Your task to perform on an android device: open sync settings in chrome Image 0: 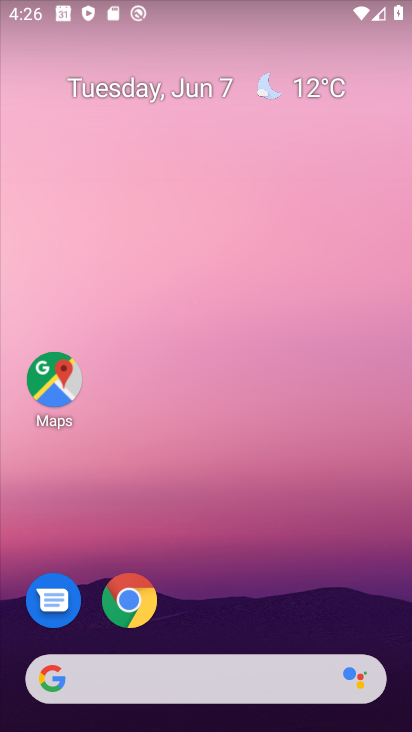
Step 0: click (130, 601)
Your task to perform on an android device: open sync settings in chrome Image 1: 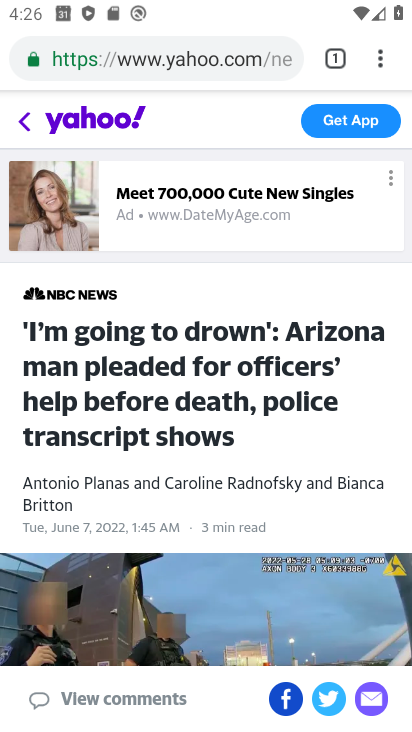
Step 1: click (377, 59)
Your task to perform on an android device: open sync settings in chrome Image 2: 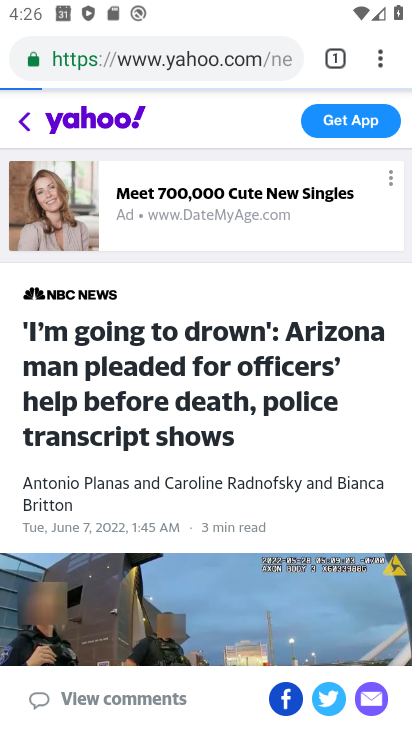
Step 2: click (377, 59)
Your task to perform on an android device: open sync settings in chrome Image 3: 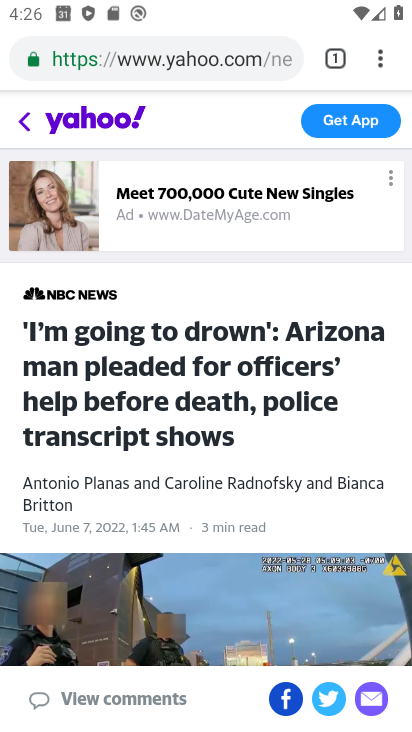
Step 3: click (373, 47)
Your task to perform on an android device: open sync settings in chrome Image 4: 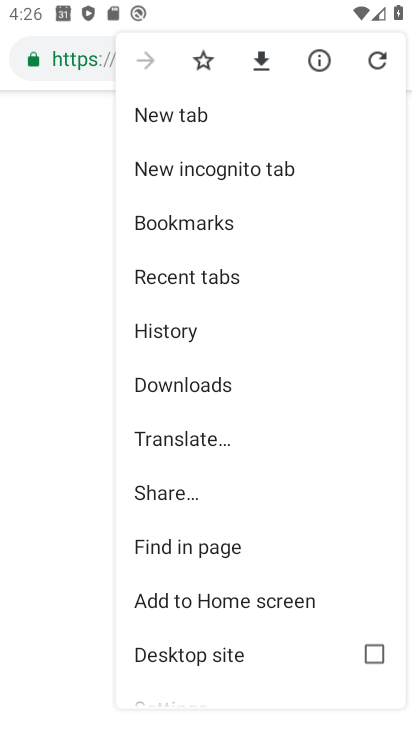
Step 4: drag from (174, 634) to (197, 253)
Your task to perform on an android device: open sync settings in chrome Image 5: 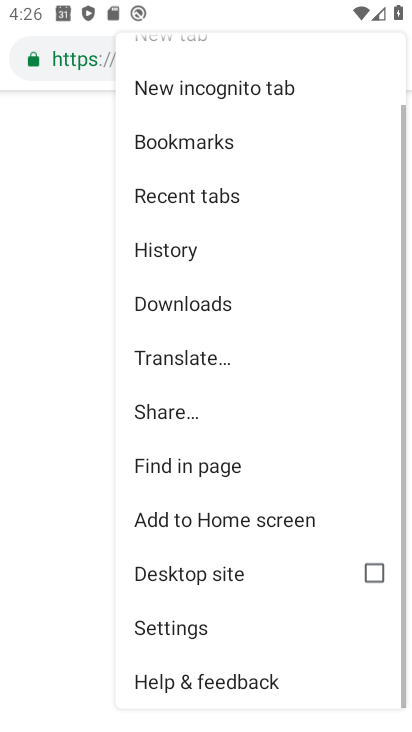
Step 5: click (162, 616)
Your task to perform on an android device: open sync settings in chrome Image 6: 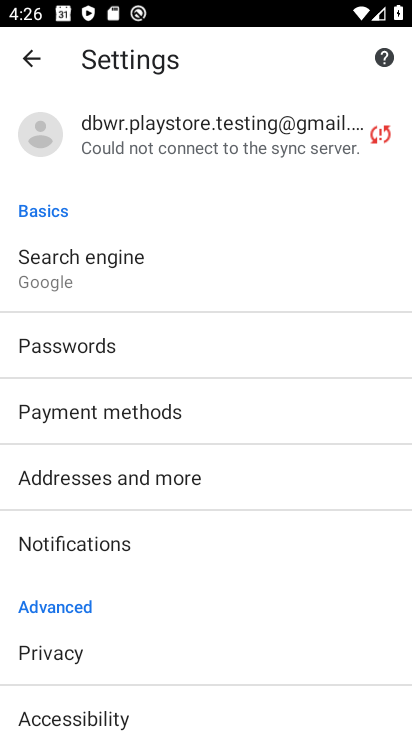
Step 6: click (132, 147)
Your task to perform on an android device: open sync settings in chrome Image 7: 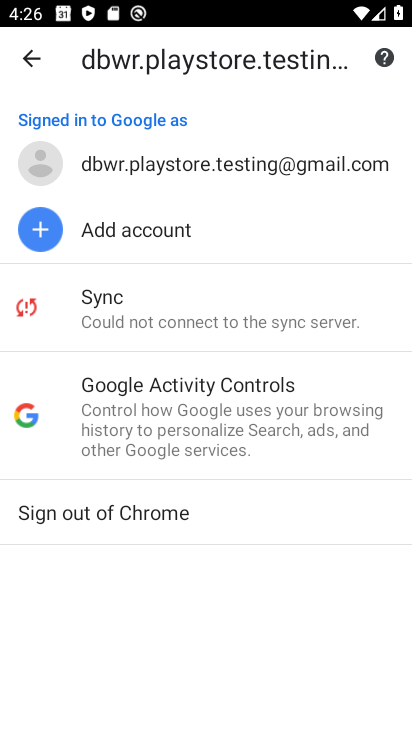
Step 7: click (136, 302)
Your task to perform on an android device: open sync settings in chrome Image 8: 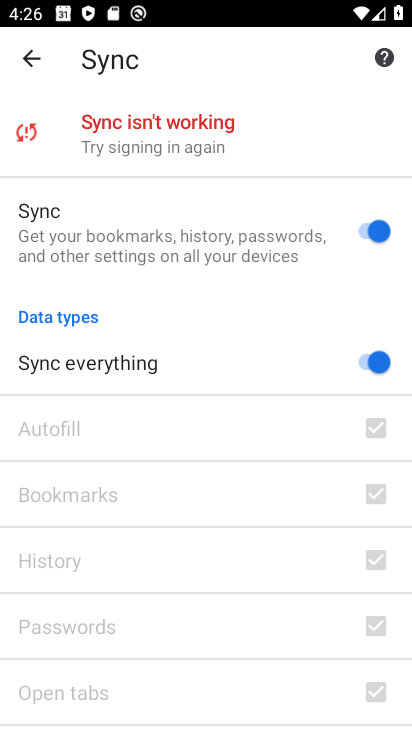
Step 8: task complete